Your task to perform on an android device: Go to Yahoo.com Image 0: 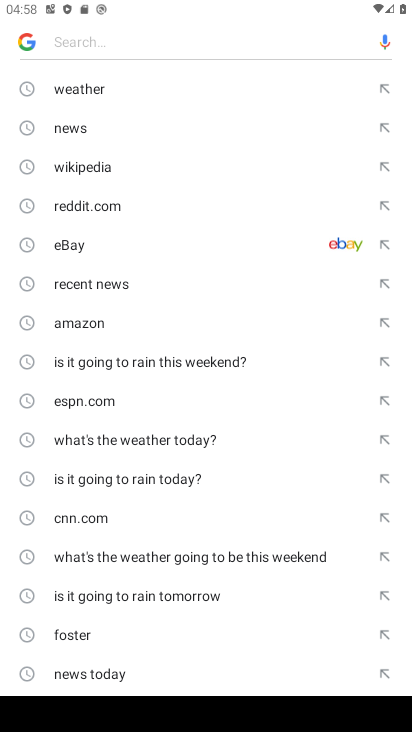
Step 0: press home button
Your task to perform on an android device: Go to Yahoo.com Image 1: 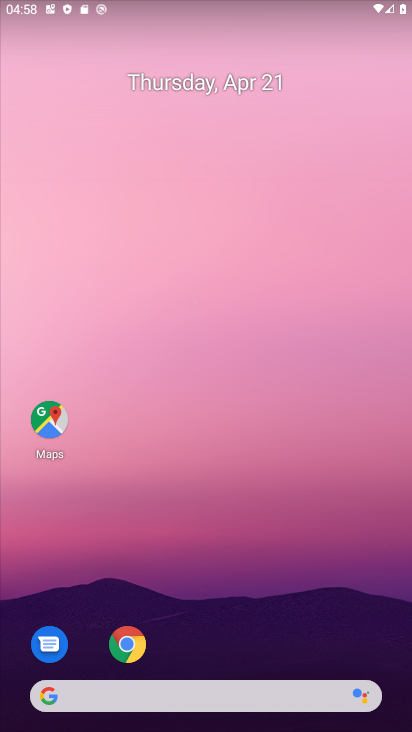
Step 1: drag from (246, 580) to (304, 90)
Your task to perform on an android device: Go to Yahoo.com Image 2: 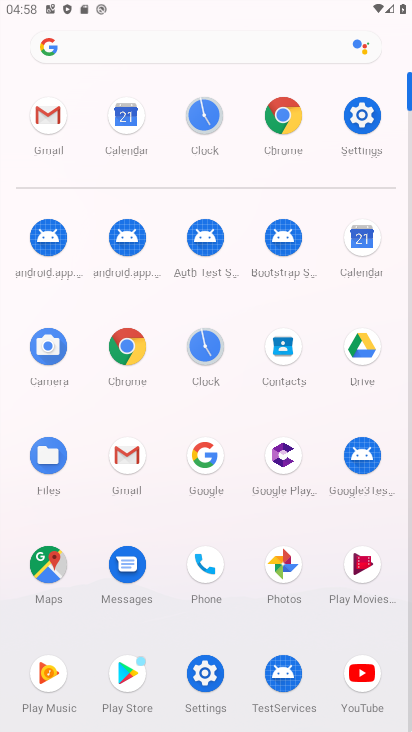
Step 2: click (130, 343)
Your task to perform on an android device: Go to Yahoo.com Image 3: 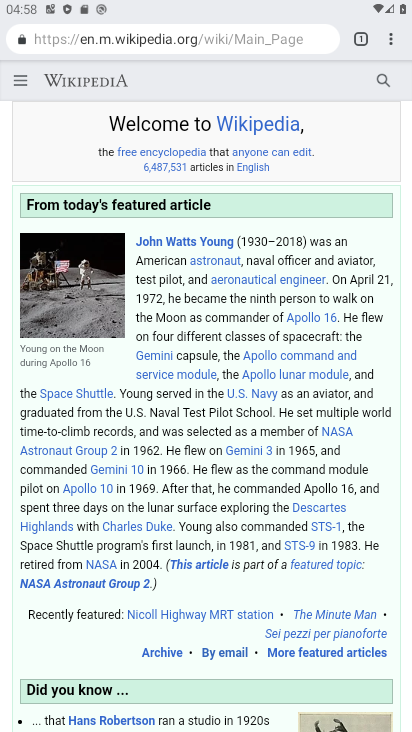
Step 3: click (201, 39)
Your task to perform on an android device: Go to Yahoo.com Image 4: 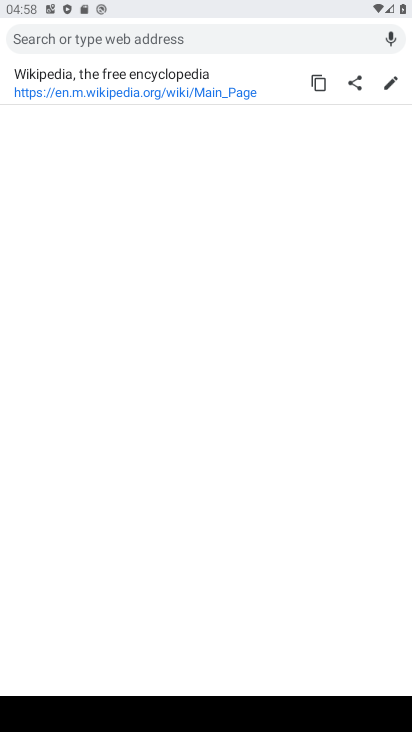
Step 4: type "yahoo.com"
Your task to perform on an android device: Go to Yahoo.com Image 5: 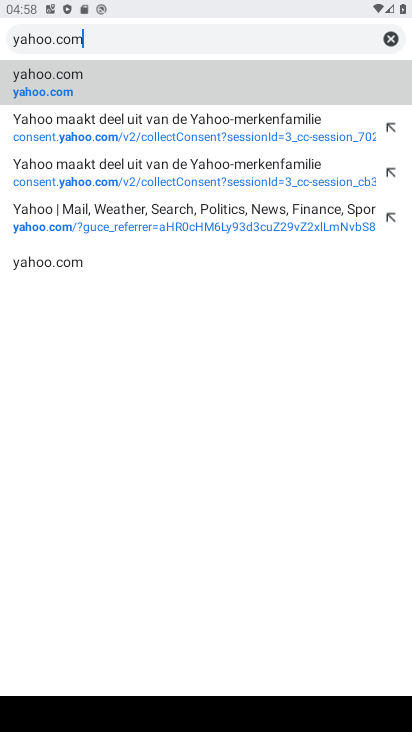
Step 5: click (53, 90)
Your task to perform on an android device: Go to Yahoo.com Image 6: 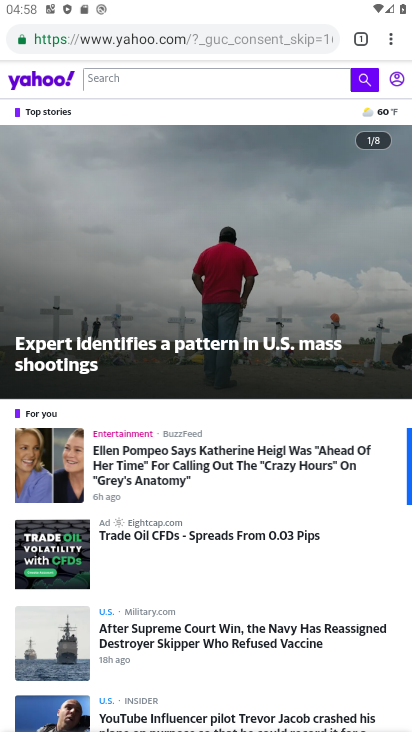
Step 6: task complete